Your task to perform on an android device: Search for sushi restaurants on Maps Image 0: 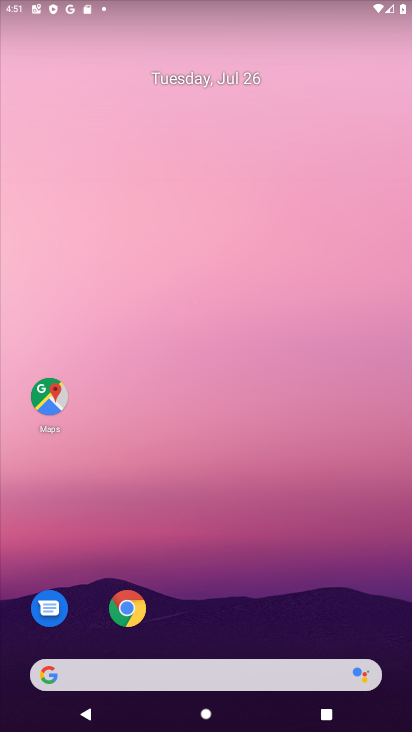
Step 0: drag from (206, 668) to (214, 183)
Your task to perform on an android device: Search for sushi restaurants on Maps Image 1: 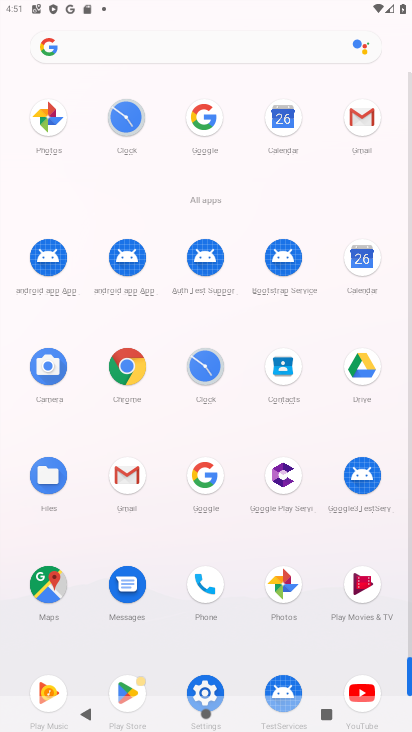
Step 1: click (64, 579)
Your task to perform on an android device: Search for sushi restaurants on Maps Image 2: 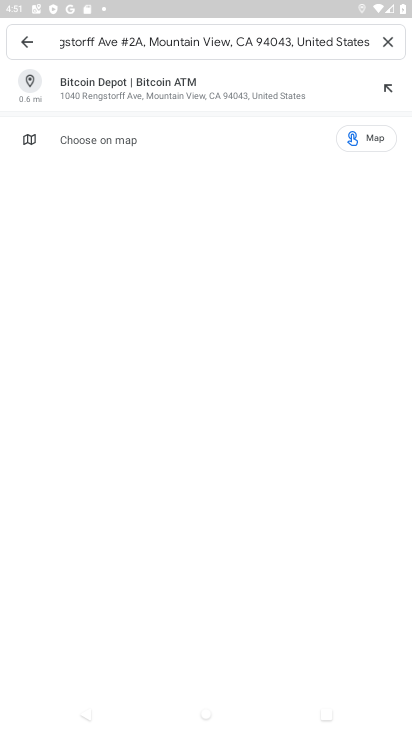
Step 2: click (29, 42)
Your task to perform on an android device: Search for sushi restaurants on Maps Image 3: 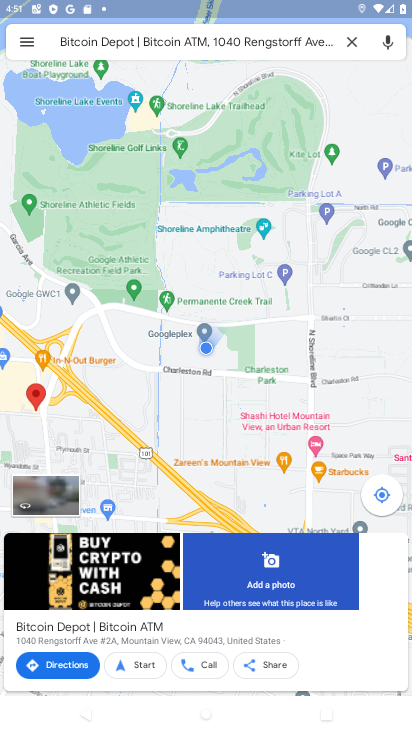
Step 3: click (350, 41)
Your task to perform on an android device: Search for sushi restaurants on Maps Image 4: 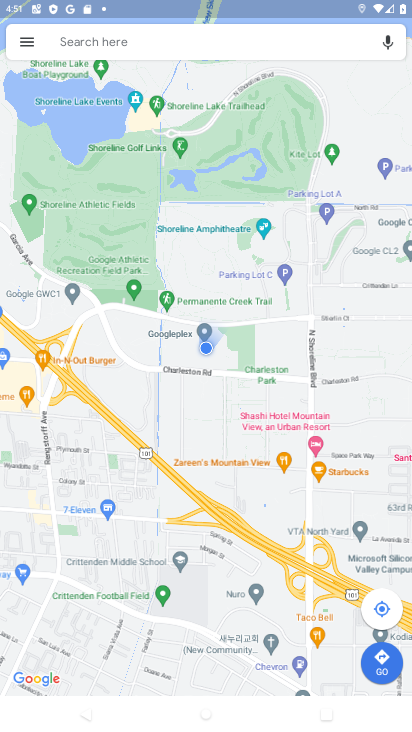
Step 4: click (106, 46)
Your task to perform on an android device: Search for sushi restaurants on Maps Image 5: 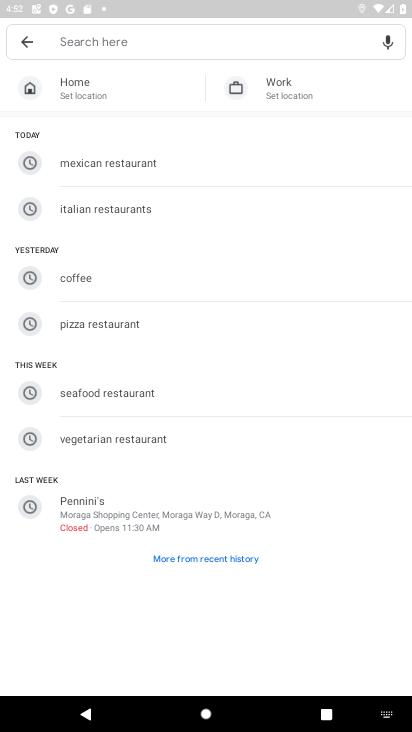
Step 5: type "sushi restaurants"
Your task to perform on an android device: Search for sushi restaurants on Maps Image 6: 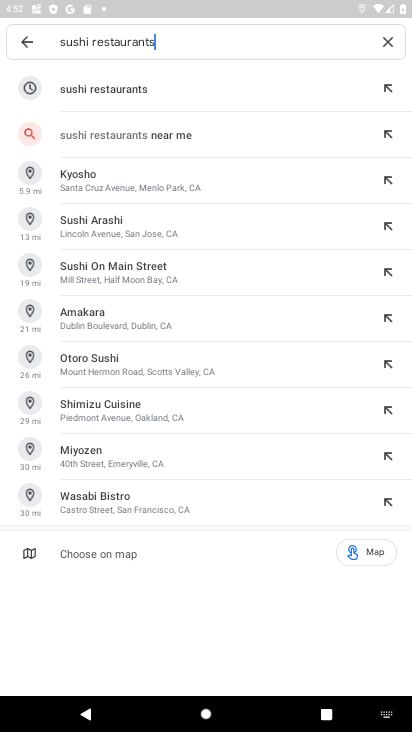
Step 6: click (98, 89)
Your task to perform on an android device: Search for sushi restaurants on Maps Image 7: 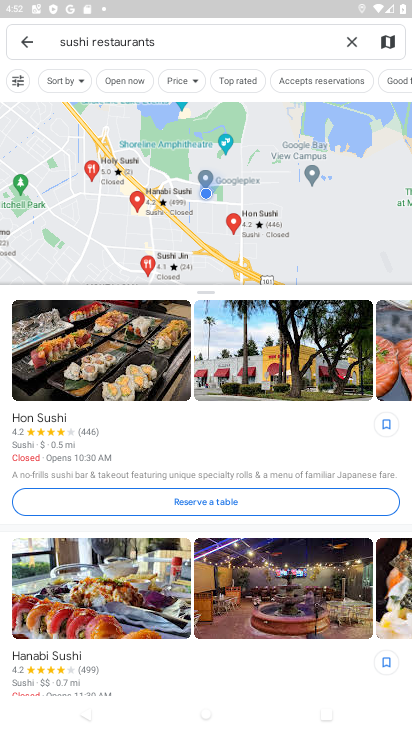
Step 7: task complete